Your task to perform on an android device: Open notification settings Image 0: 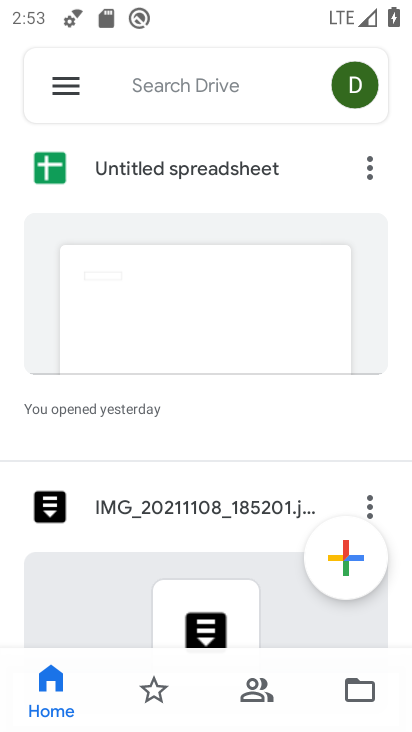
Step 0: press home button
Your task to perform on an android device: Open notification settings Image 1: 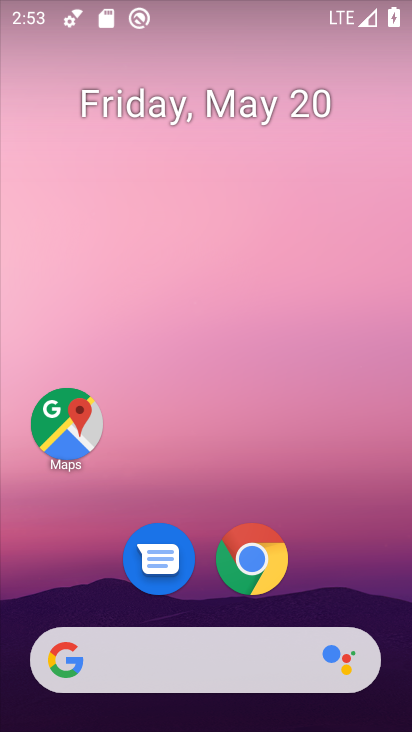
Step 1: drag from (325, 526) to (311, 7)
Your task to perform on an android device: Open notification settings Image 2: 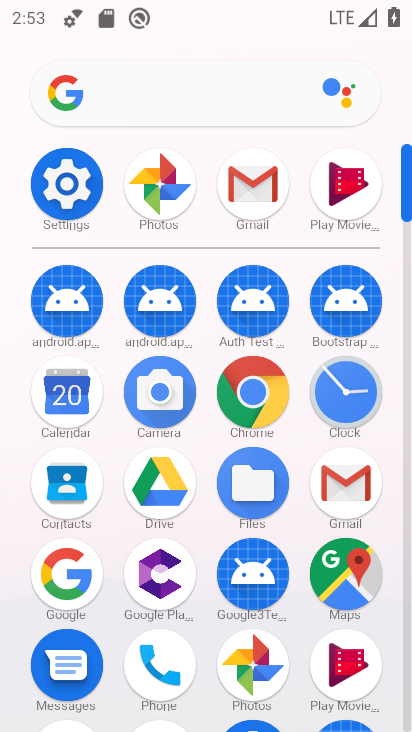
Step 2: click (78, 197)
Your task to perform on an android device: Open notification settings Image 3: 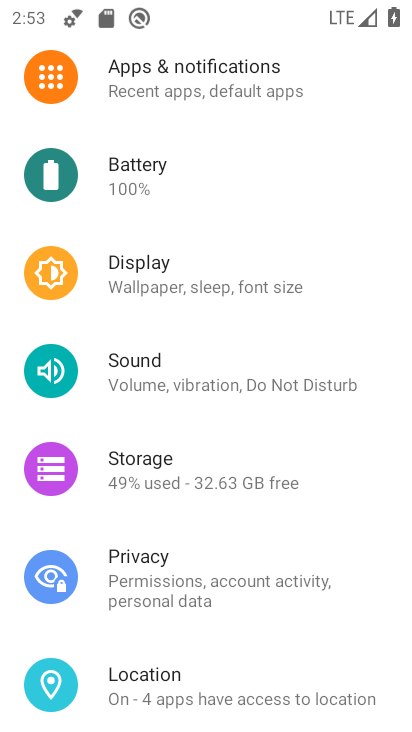
Step 3: drag from (213, 208) to (235, 461)
Your task to perform on an android device: Open notification settings Image 4: 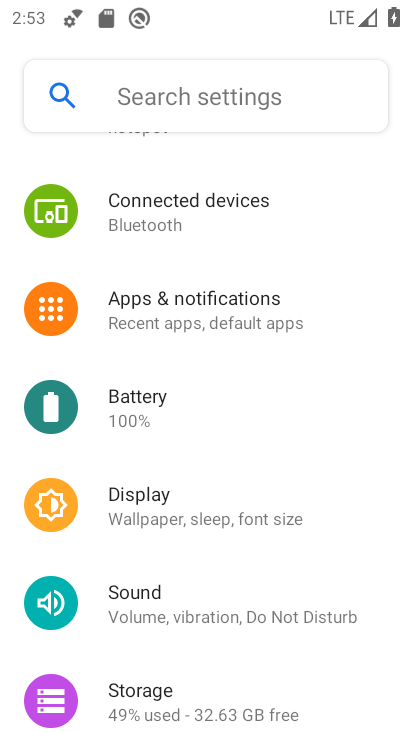
Step 4: click (228, 309)
Your task to perform on an android device: Open notification settings Image 5: 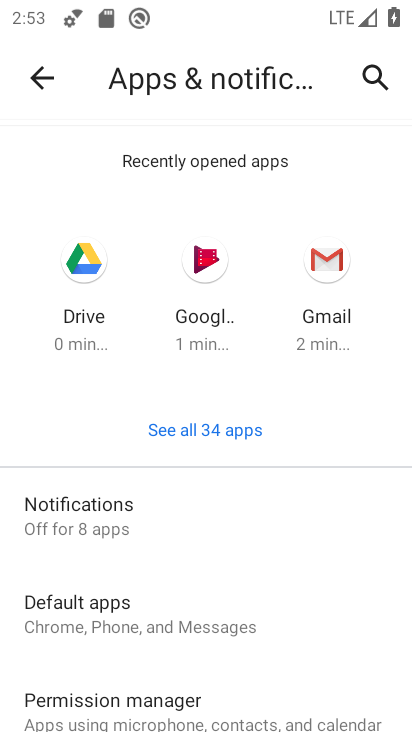
Step 5: click (120, 519)
Your task to perform on an android device: Open notification settings Image 6: 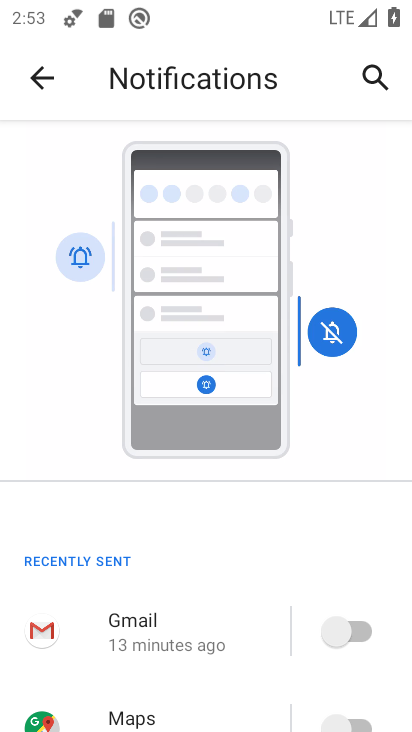
Step 6: task complete